Your task to perform on an android device: turn off improve location accuracy Image 0: 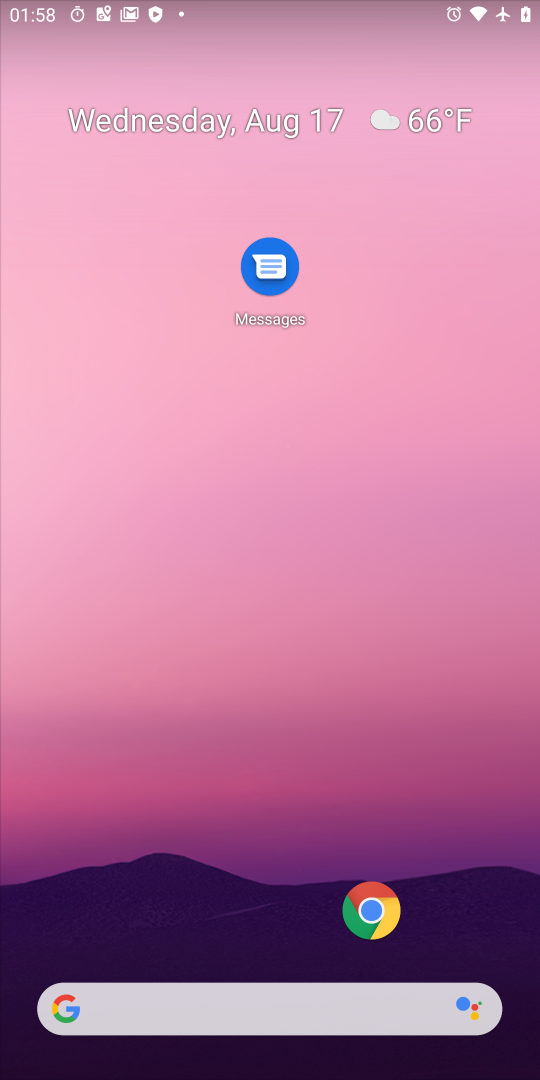
Step 0: drag from (232, 897) to (306, 181)
Your task to perform on an android device: turn off improve location accuracy Image 1: 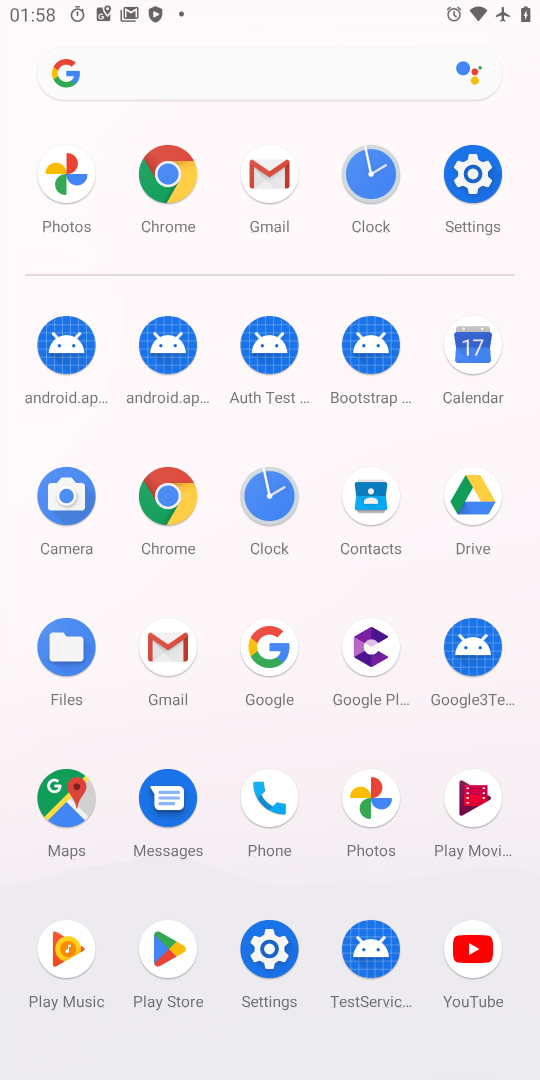
Step 1: click (263, 954)
Your task to perform on an android device: turn off improve location accuracy Image 2: 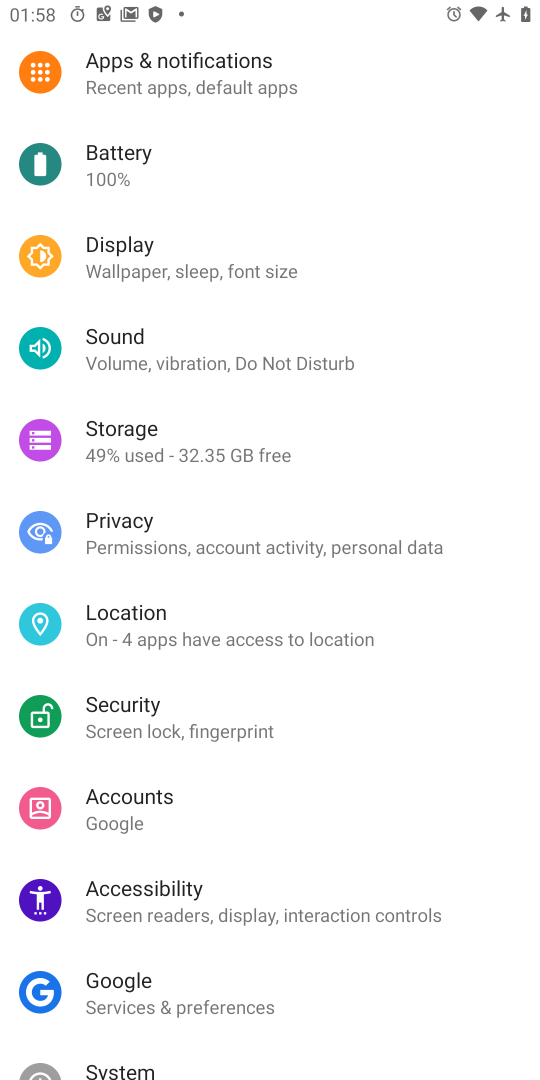
Step 2: click (130, 594)
Your task to perform on an android device: turn off improve location accuracy Image 3: 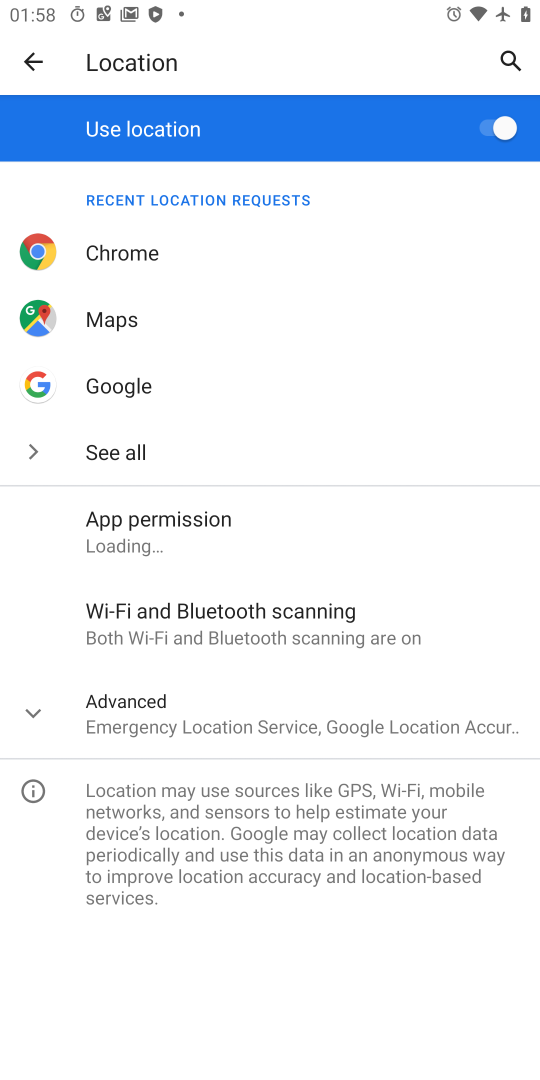
Step 3: click (143, 700)
Your task to perform on an android device: turn off improve location accuracy Image 4: 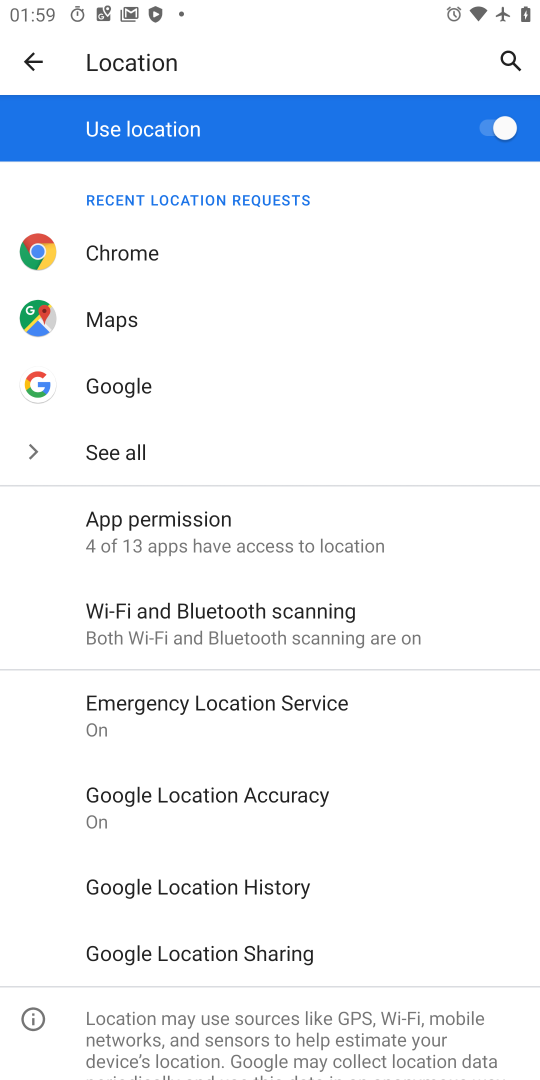
Step 4: click (263, 797)
Your task to perform on an android device: turn off improve location accuracy Image 5: 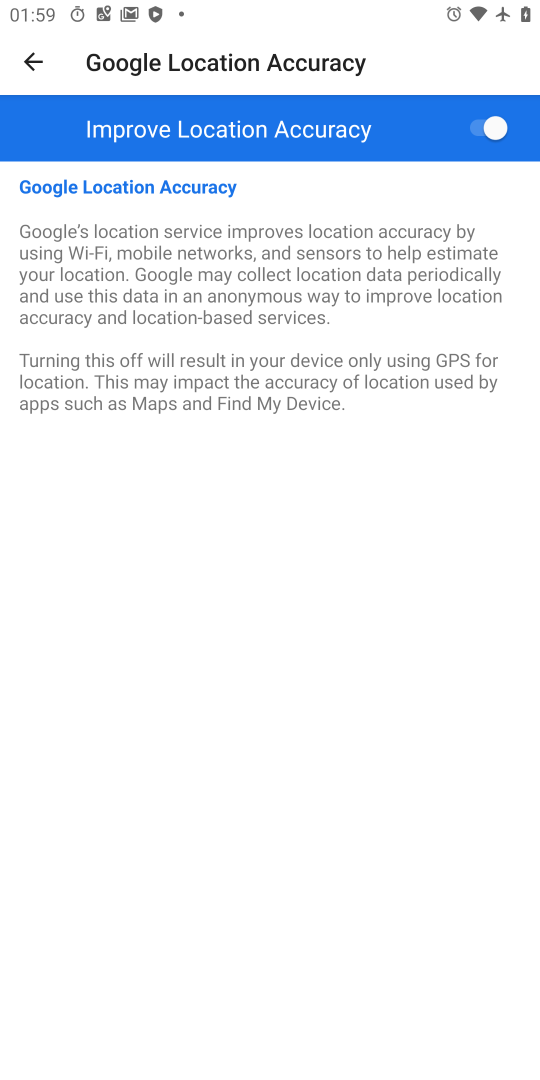
Step 5: click (476, 115)
Your task to perform on an android device: turn off improve location accuracy Image 6: 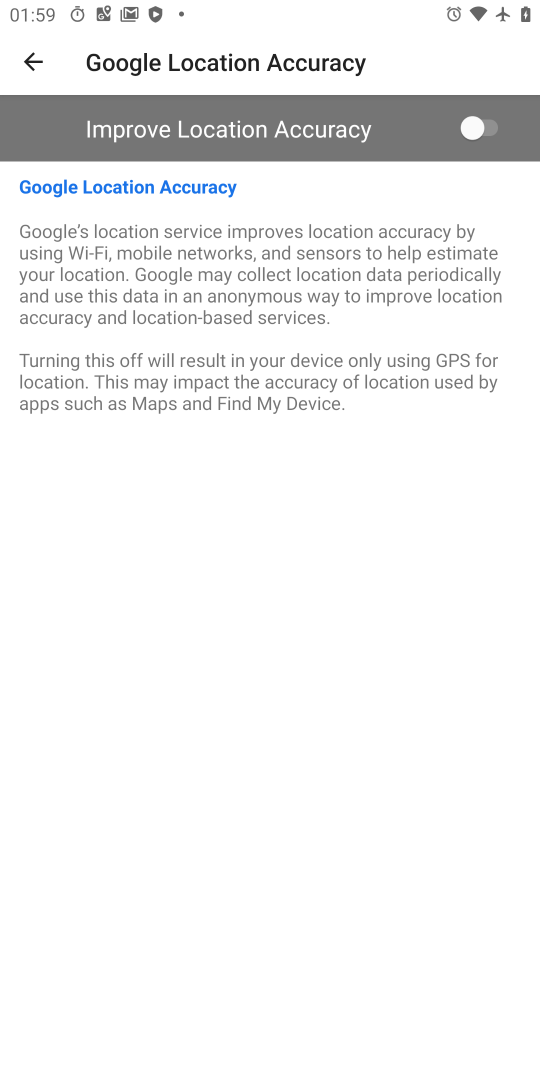
Step 6: task complete